Your task to perform on an android device: Play the last video I watched on Youtube Image 0: 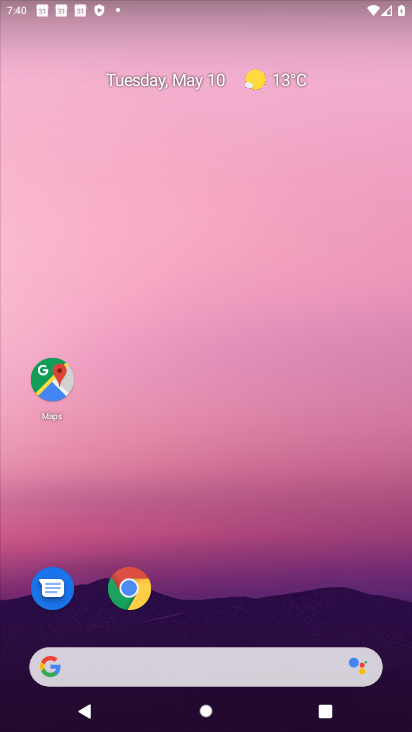
Step 0: drag from (210, 628) to (295, 15)
Your task to perform on an android device: Play the last video I watched on Youtube Image 1: 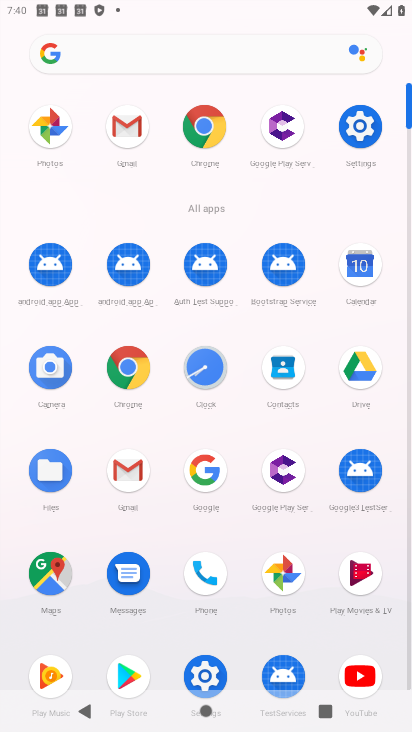
Step 1: click (371, 670)
Your task to perform on an android device: Play the last video I watched on Youtube Image 2: 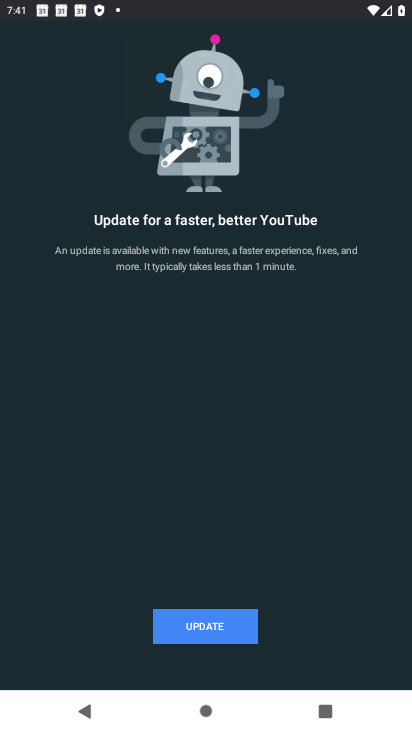
Step 2: click (172, 643)
Your task to perform on an android device: Play the last video I watched on Youtube Image 3: 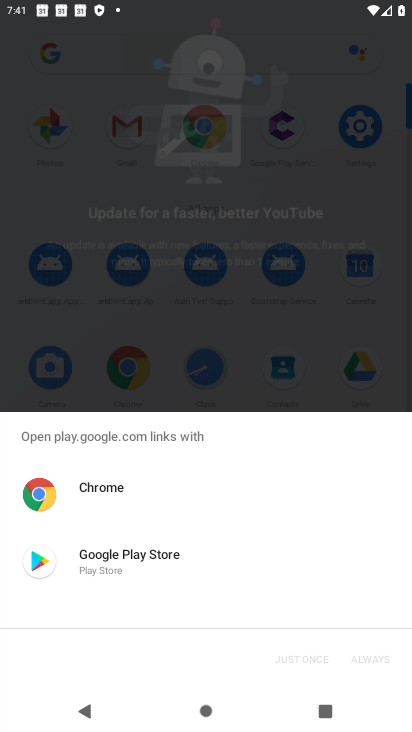
Step 3: click (172, 643)
Your task to perform on an android device: Play the last video I watched on Youtube Image 4: 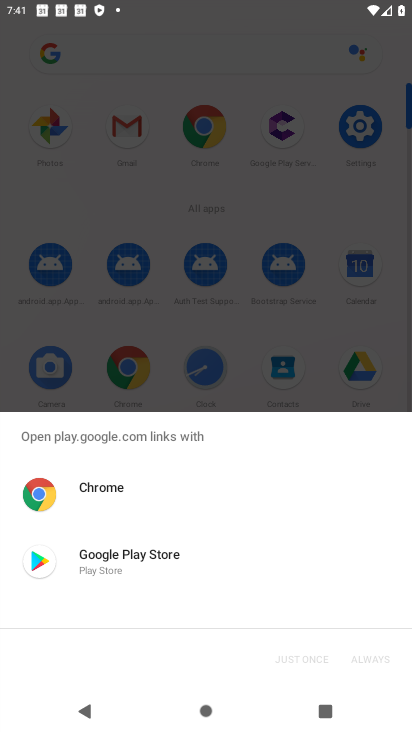
Step 4: click (168, 590)
Your task to perform on an android device: Play the last video I watched on Youtube Image 5: 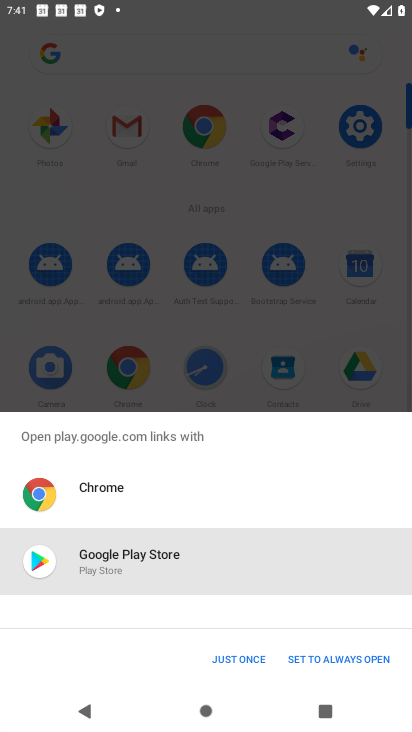
Step 5: click (232, 654)
Your task to perform on an android device: Play the last video I watched on Youtube Image 6: 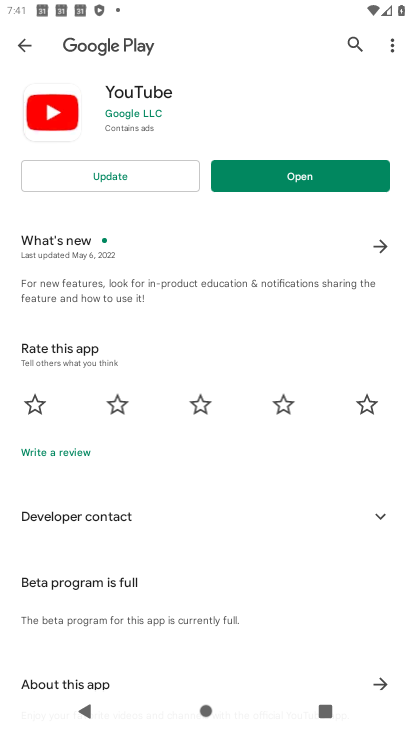
Step 6: click (137, 181)
Your task to perform on an android device: Play the last video I watched on Youtube Image 7: 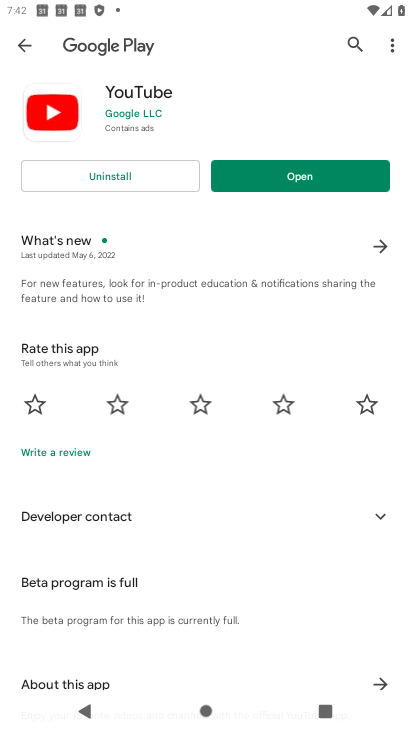
Step 7: click (247, 187)
Your task to perform on an android device: Play the last video I watched on Youtube Image 8: 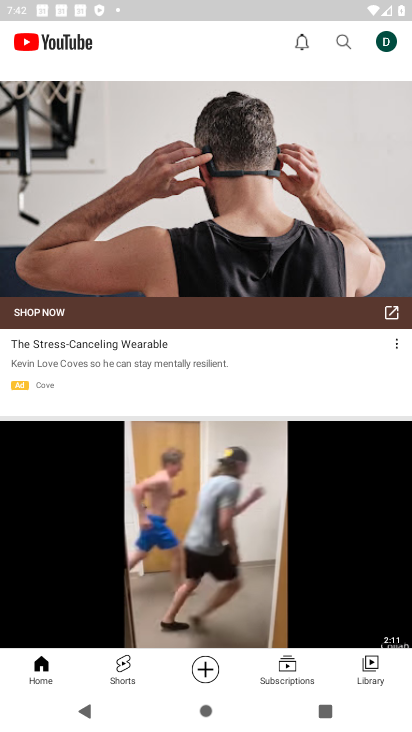
Step 8: click (379, 667)
Your task to perform on an android device: Play the last video I watched on Youtube Image 9: 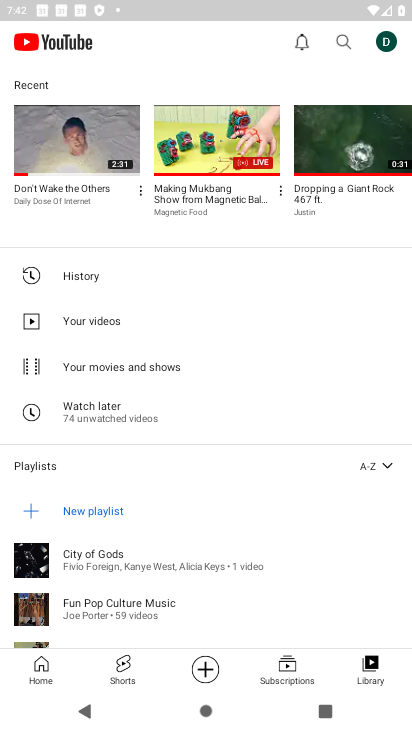
Step 9: click (66, 143)
Your task to perform on an android device: Play the last video I watched on Youtube Image 10: 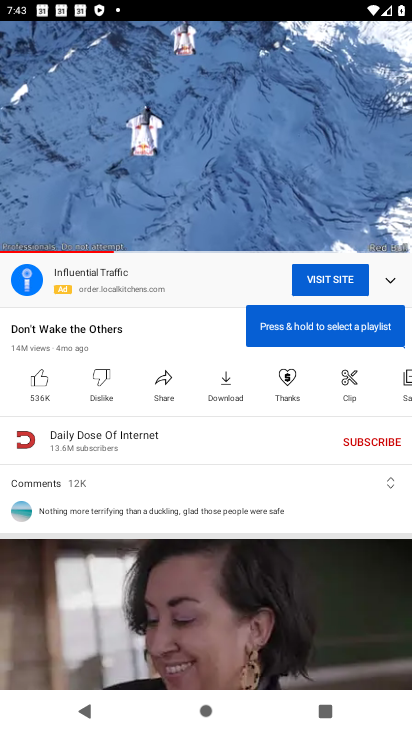
Step 10: task complete